Your task to perform on an android device: stop showing notifications on the lock screen Image 0: 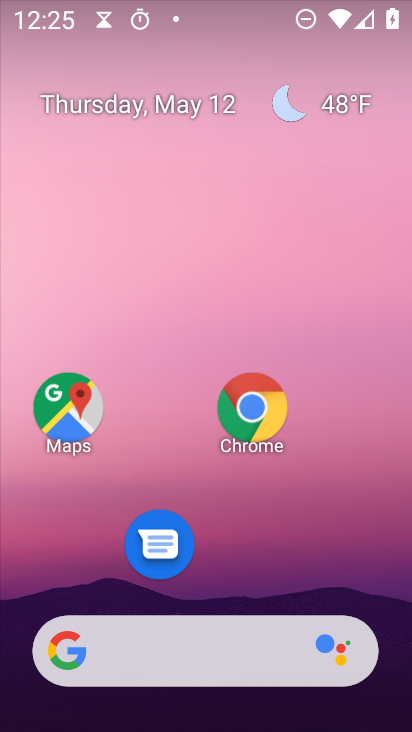
Step 0: drag from (241, 581) to (347, 92)
Your task to perform on an android device: stop showing notifications on the lock screen Image 1: 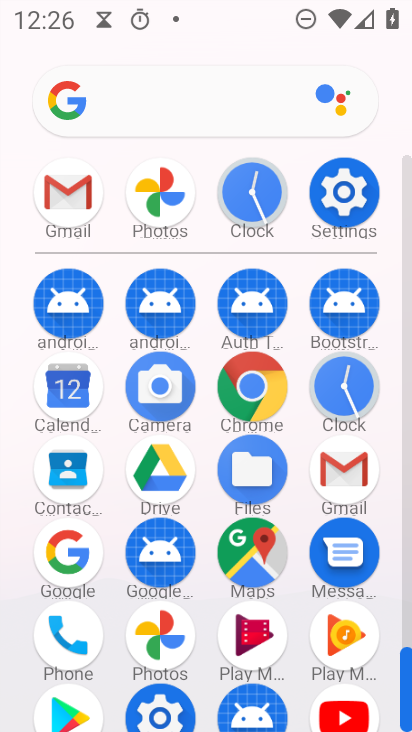
Step 1: click (347, 210)
Your task to perform on an android device: stop showing notifications on the lock screen Image 2: 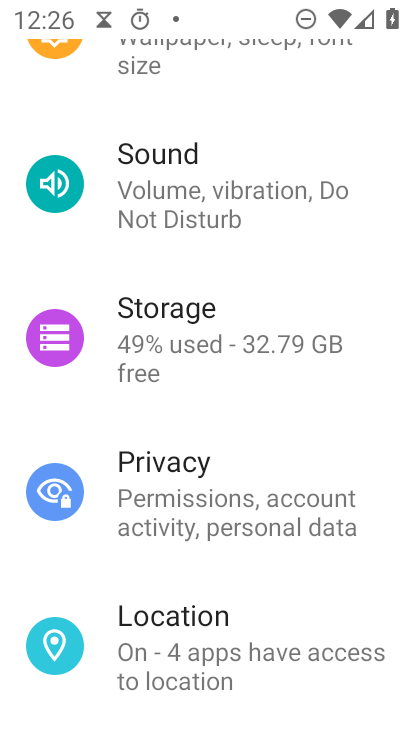
Step 2: drag from (190, 65) to (183, 439)
Your task to perform on an android device: stop showing notifications on the lock screen Image 3: 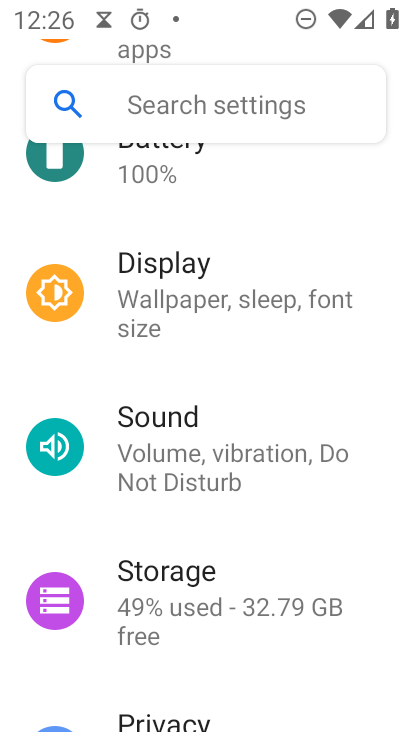
Step 3: drag from (138, 219) to (162, 638)
Your task to perform on an android device: stop showing notifications on the lock screen Image 4: 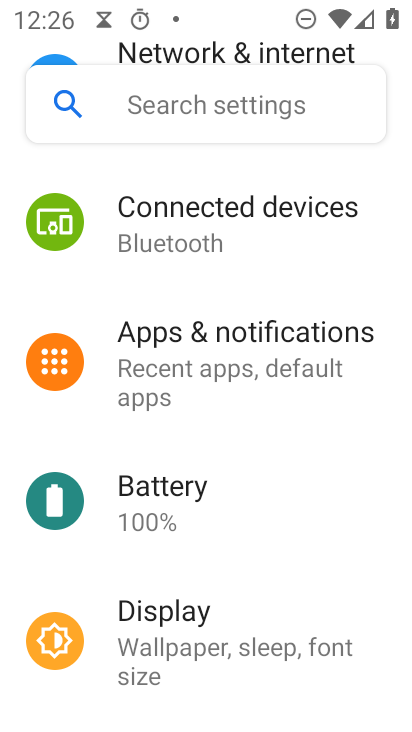
Step 4: click (159, 346)
Your task to perform on an android device: stop showing notifications on the lock screen Image 5: 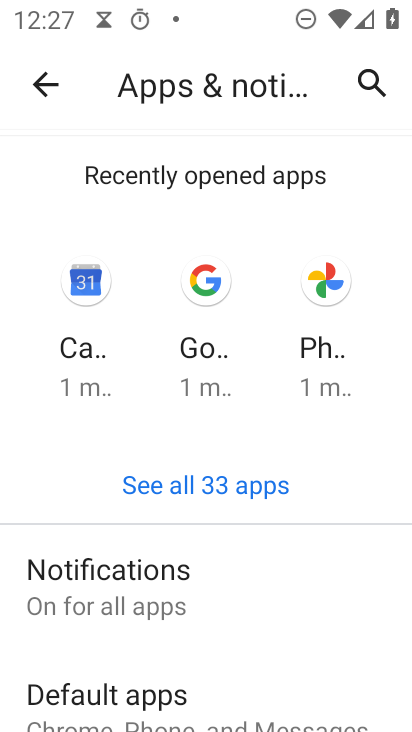
Step 5: drag from (123, 583) to (127, 219)
Your task to perform on an android device: stop showing notifications on the lock screen Image 6: 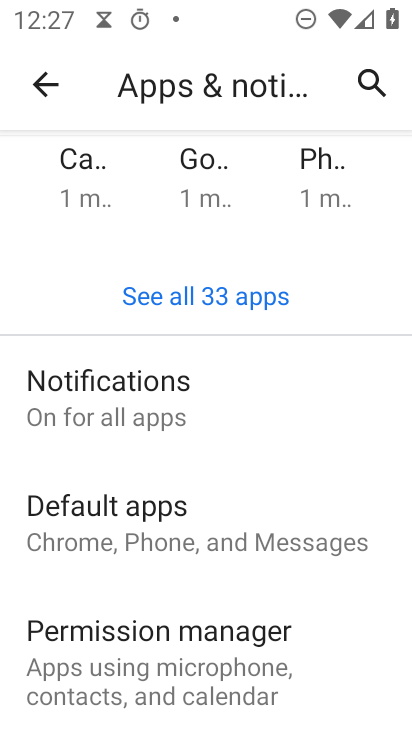
Step 6: drag from (199, 660) to (222, 442)
Your task to perform on an android device: stop showing notifications on the lock screen Image 7: 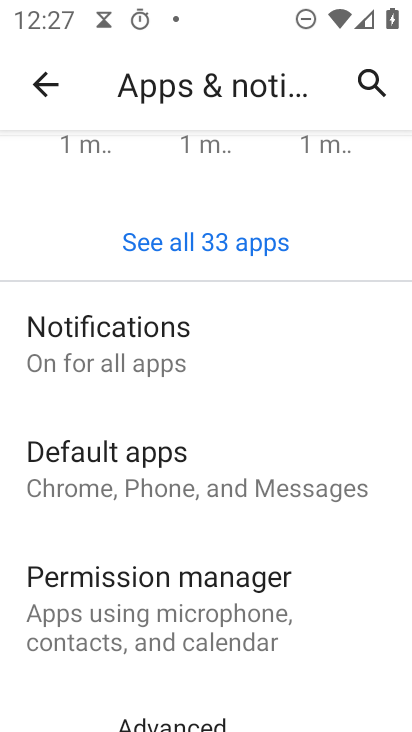
Step 7: click (149, 372)
Your task to perform on an android device: stop showing notifications on the lock screen Image 8: 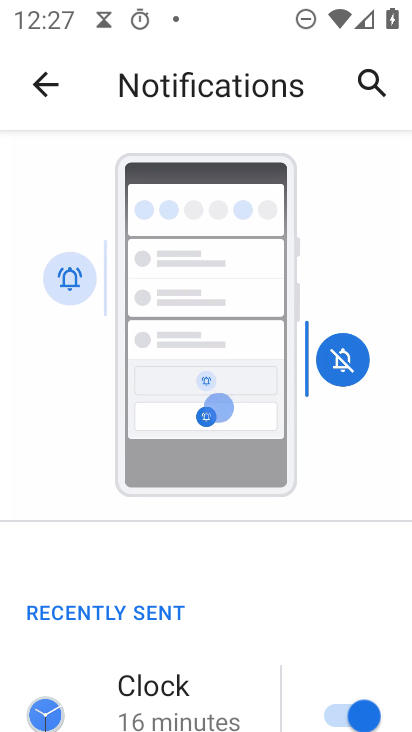
Step 8: drag from (127, 707) to (155, 239)
Your task to perform on an android device: stop showing notifications on the lock screen Image 9: 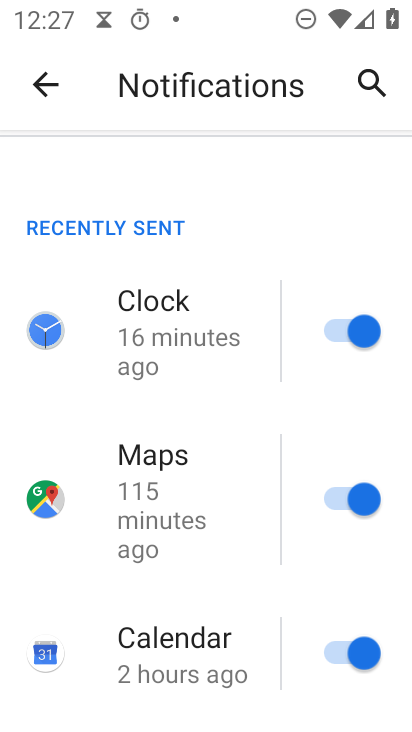
Step 9: drag from (118, 613) to (179, 195)
Your task to perform on an android device: stop showing notifications on the lock screen Image 10: 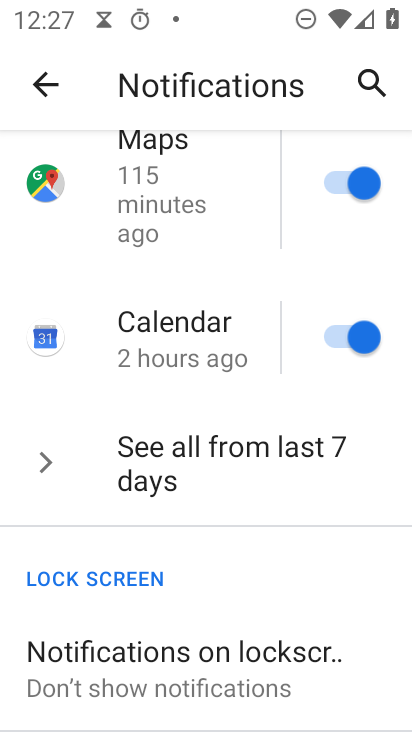
Step 10: drag from (199, 635) to (207, 358)
Your task to perform on an android device: stop showing notifications on the lock screen Image 11: 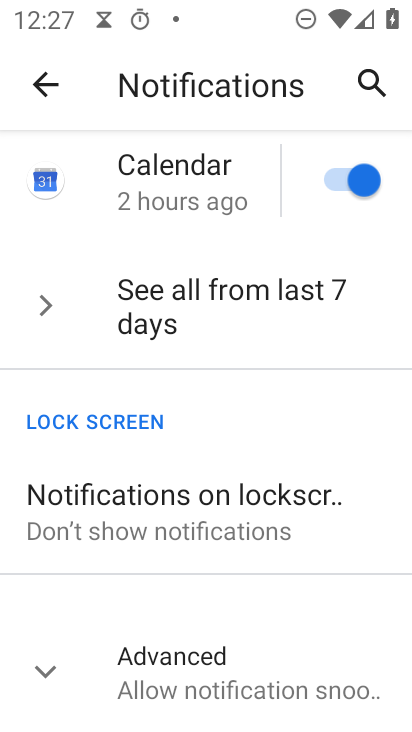
Step 11: click (170, 509)
Your task to perform on an android device: stop showing notifications on the lock screen Image 12: 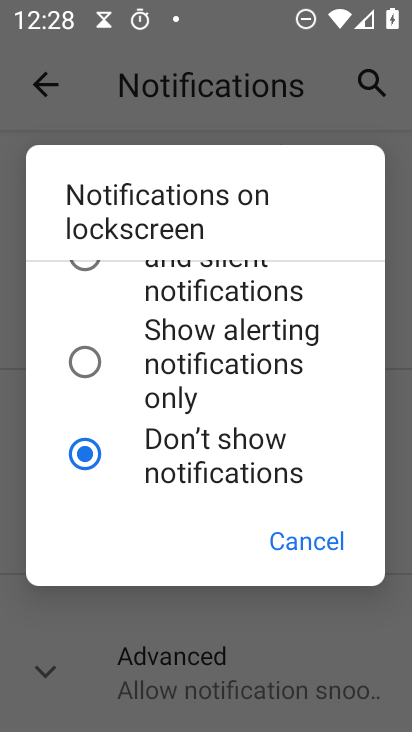
Step 12: task complete